Your task to perform on an android device: Go to ESPN.com Image 0: 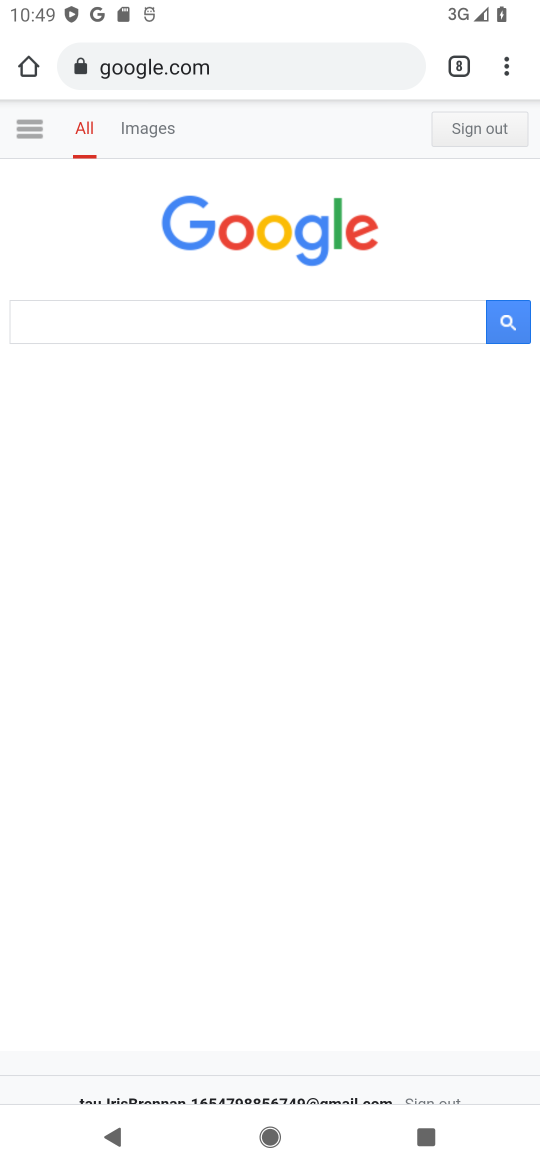
Step 0: press home button
Your task to perform on an android device: Go to ESPN.com Image 1: 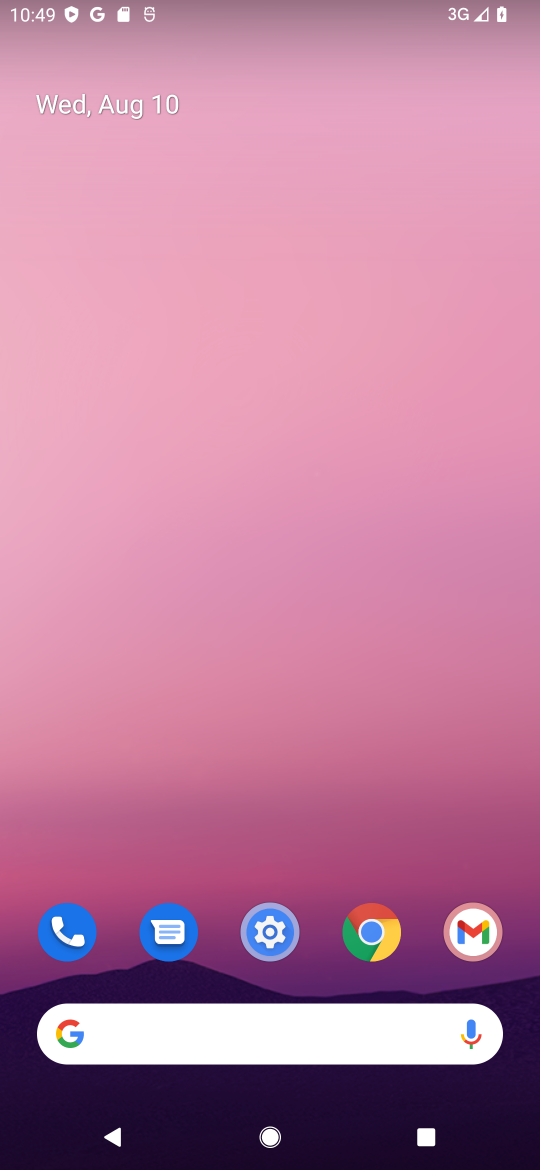
Step 1: click (378, 934)
Your task to perform on an android device: Go to ESPN.com Image 2: 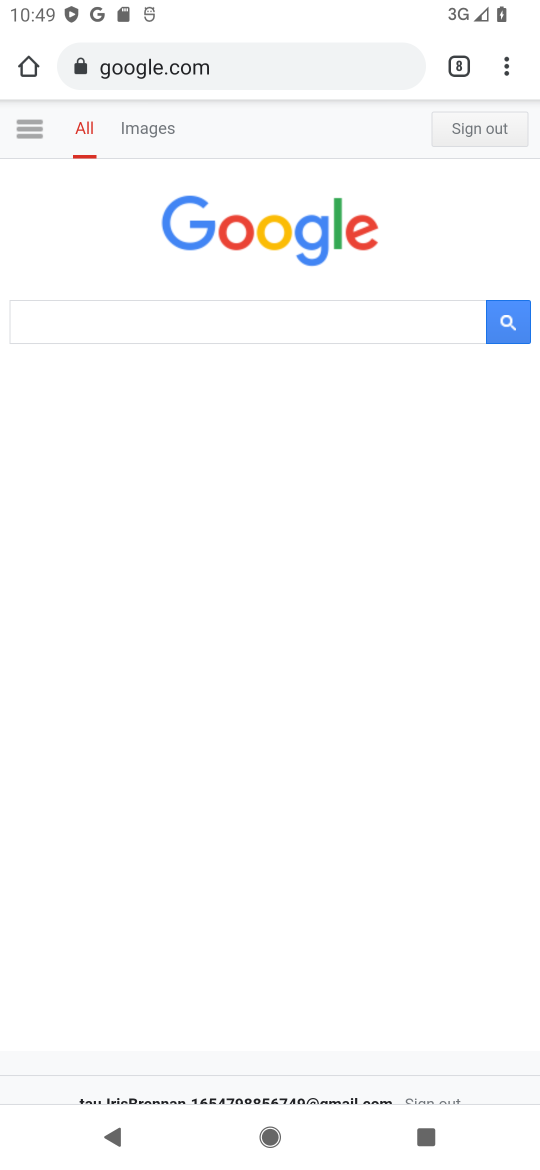
Step 2: click (490, 56)
Your task to perform on an android device: Go to ESPN.com Image 3: 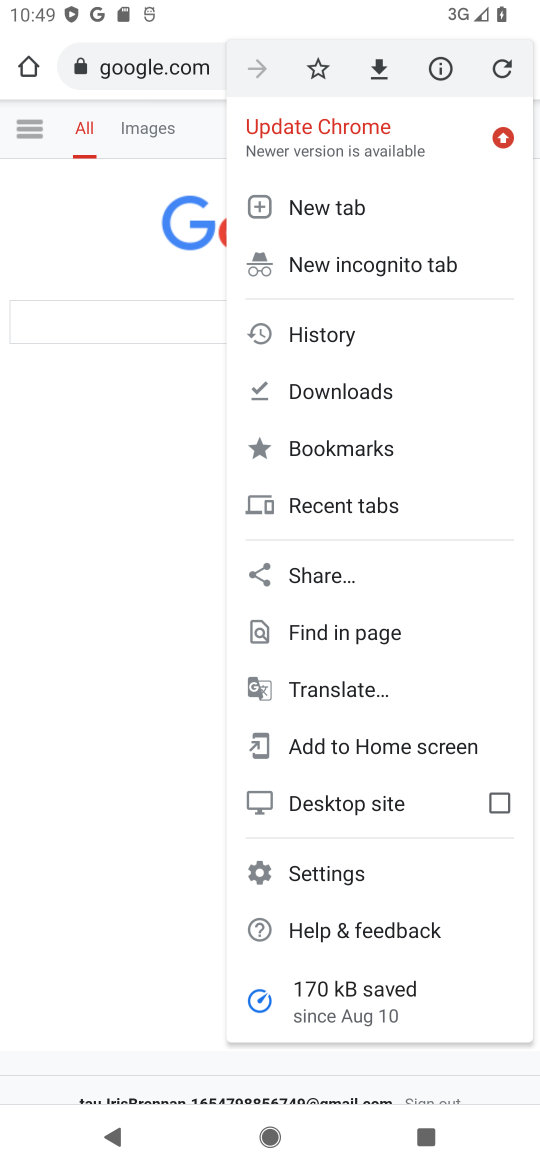
Step 3: click (312, 200)
Your task to perform on an android device: Go to ESPN.com Image 4: 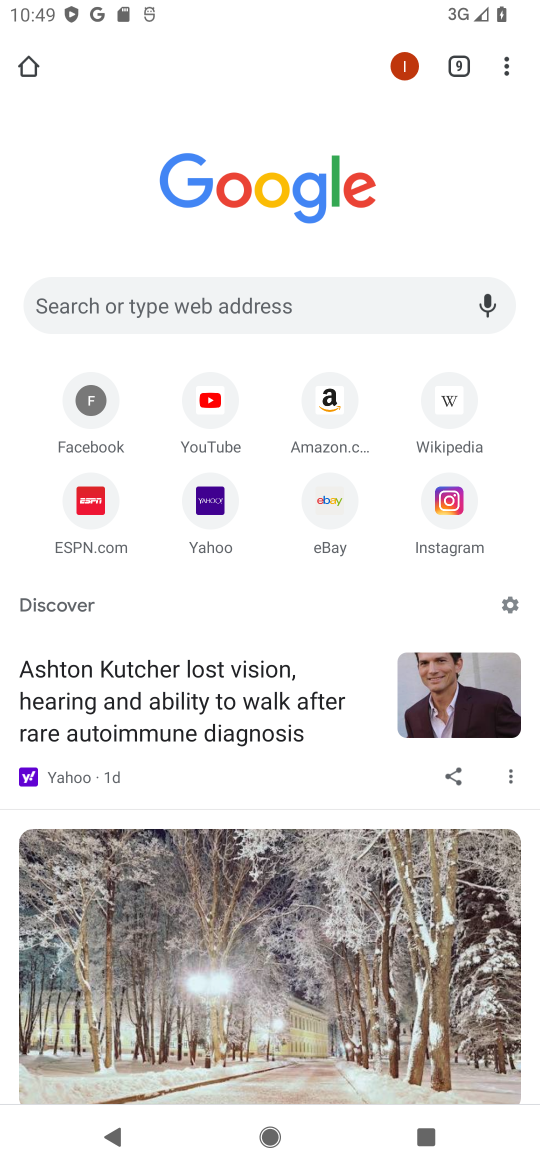
Step 4: click (92, 495)
Your task to perform on an android device: Go to ESPN.com Image 5: 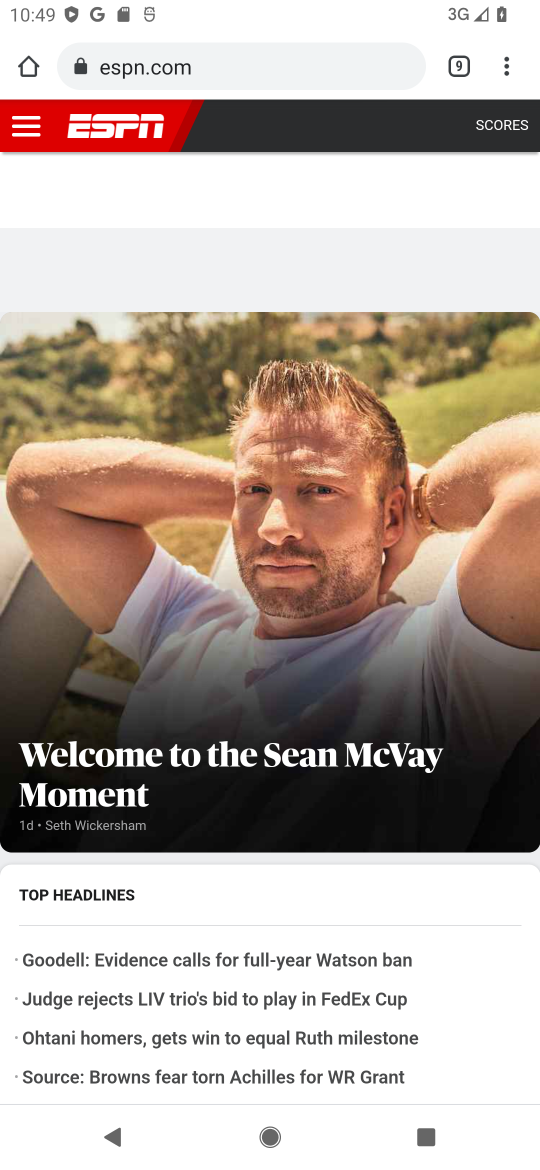
Step 5: task complete